Your task to perform on an android device: open a bookmark in the chrome app Image 0: 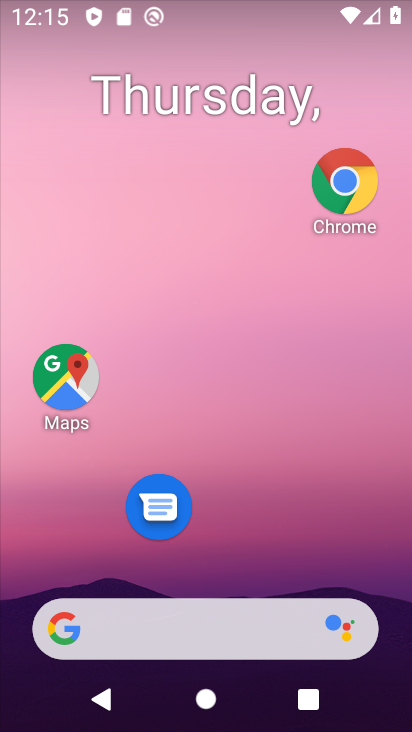
Step 0: drag from (177, 611) to (250, 340)
Your task to perform on an android device: open a bookmark in the chrome app Image 1: 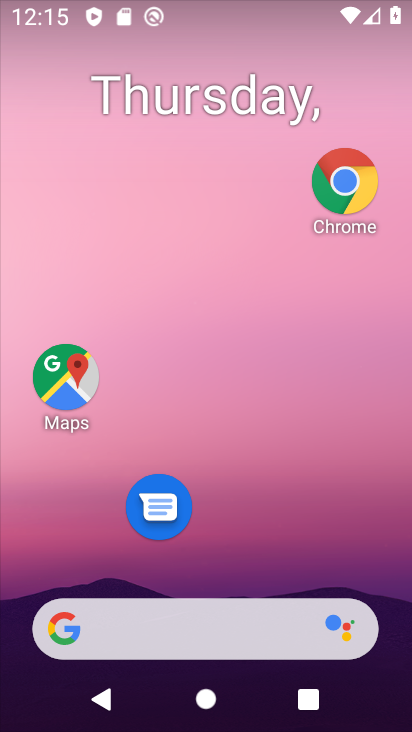
Step 1: click (360, 214)
Your task to perform on an android device: open a bookmark in the chrome app Image 2: 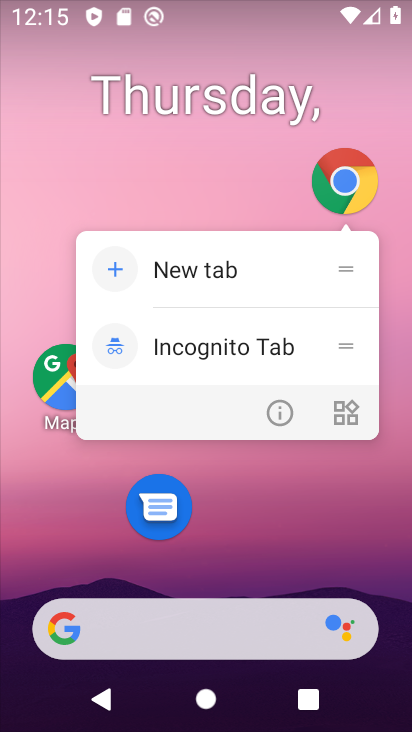
Step 2: click (360, 138)
Your task to perform on an android device: open a bookmark in the chrome app Image 3: 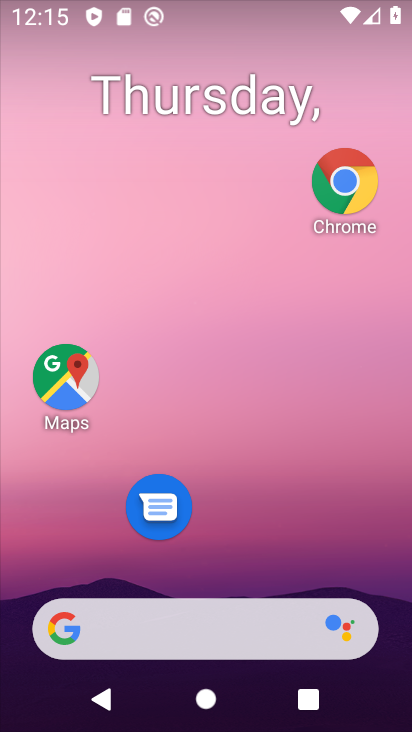
Step 3: click (341, 200)
Your task to perform on an android device: open a bookmark in the chrome app Image 4: 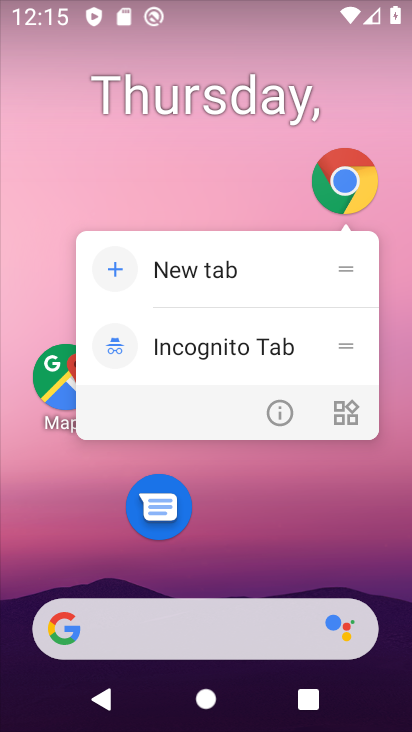
Step 4: click (351, 185)
Your task to perform on an android device: open a bookmark in the chrome app Image 5: 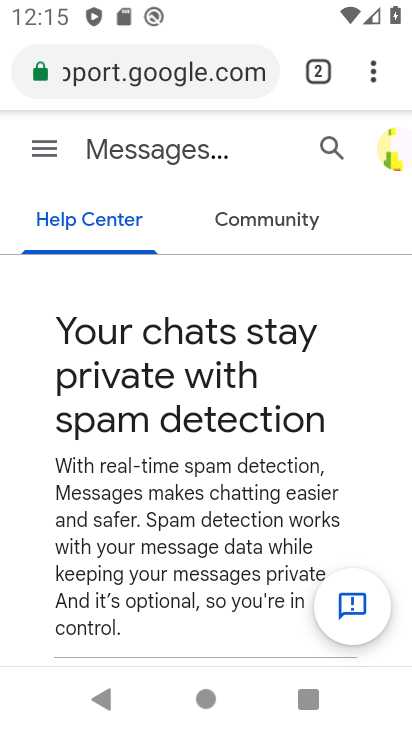
Step 5: click (375, 75)
Your task to perform on an android device: open a bookmark in the chrome app Image 6: 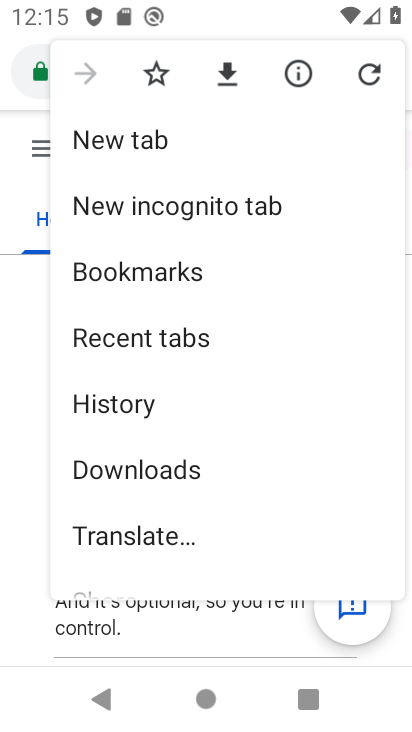
Step 6: click (199, 267)
Your task to perform on an android device: open a bookmark in the chrome app Image 7: 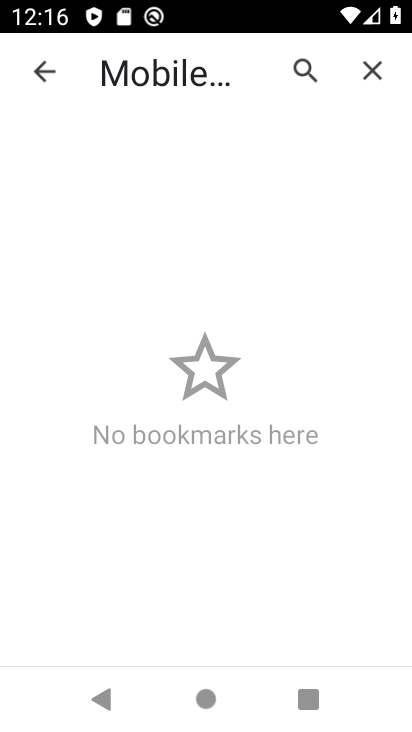
Step 7: task complete